Your task to perform on an android device: Open calendar and show me the second week of next month Image 0: 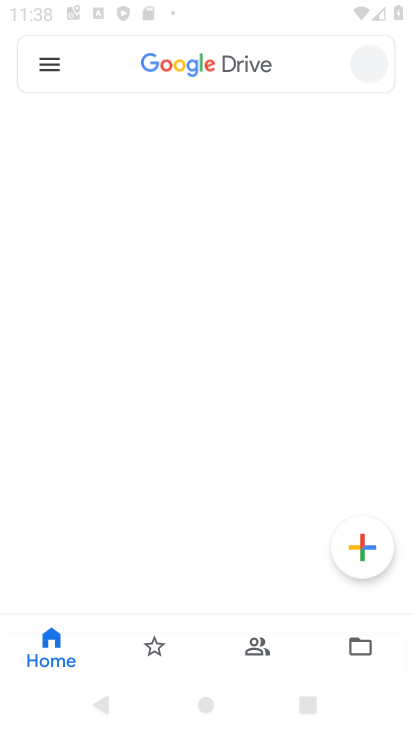
Step 0: drag from (248, 613) to (191, 276)
Your task to perform on an android device: Open calendar and show me the second week of next month Image 1: 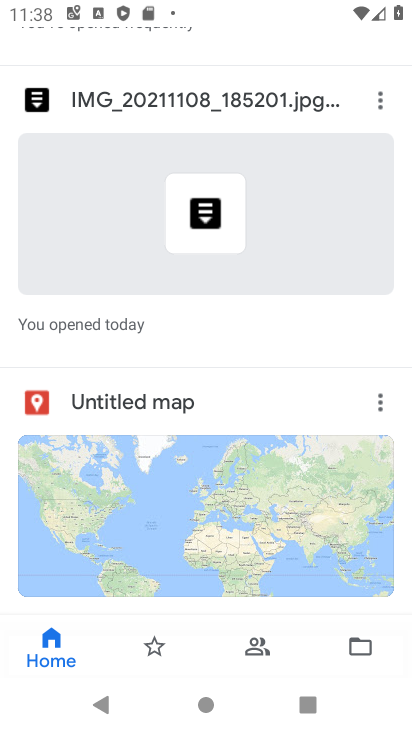
Step 1: press home button
Your task to perform on an android device: Open calendar and show me the second week of next month Image 2: 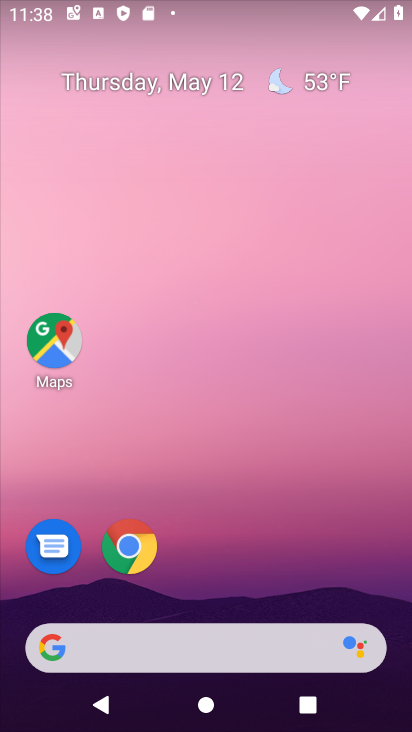
Step 2: drag from (227, 658) to (209, 305)
Your task to perform on an android device: Open calendar and show me the second week of next month Image 3: 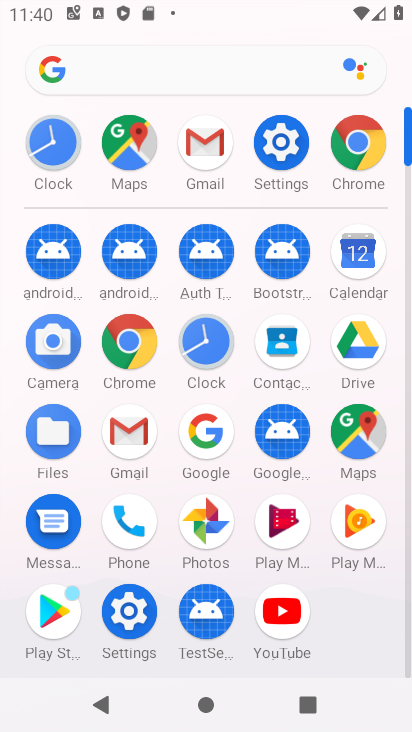
Step 3: click (342, 251)
Your task to perform on an android device: Open calendar and show me the second week of next month Image 4: 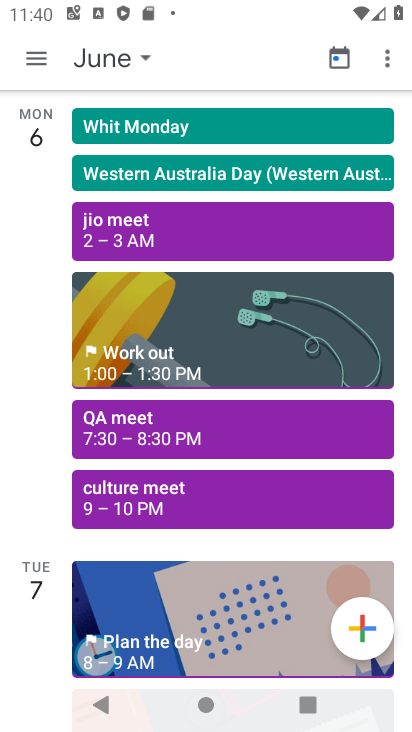
Step 4: click (43, 71)
Your task to perform on an android device: Open calendar and show me the second week of next month Image 5: 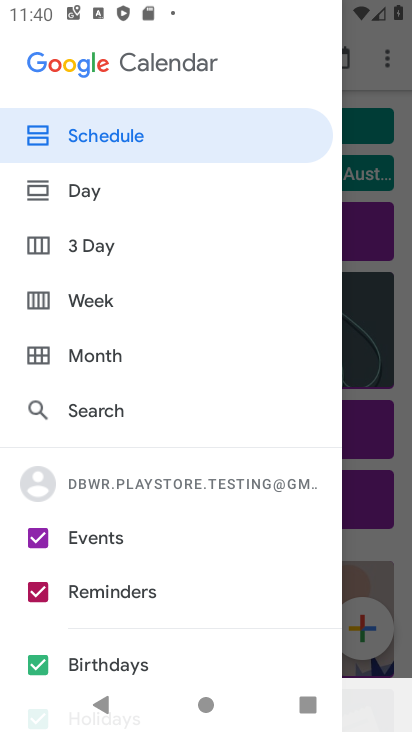
Step 5: click (115, 350)
Your task to perform on an android device: Open calendar and show me the second week of next month Image 6: 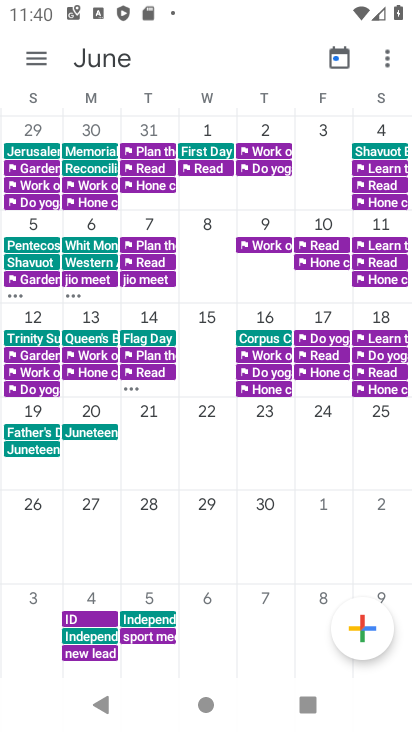
Step 6: click (90, 239)
Your task to perform on an android device: Open calendar and show me the second week of next month Image 7: 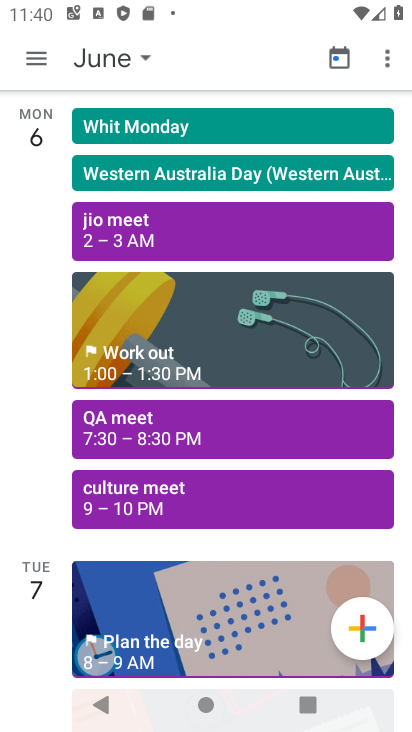
Step 7: task complete